Your task to perform on an android device: Go to sound settings Image 0: 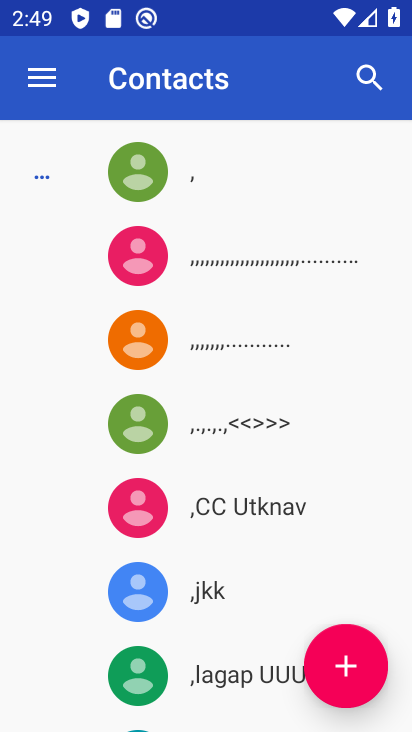
Step 0: press home button
Your task to perform on an android device: Go to sound settings Image 1: 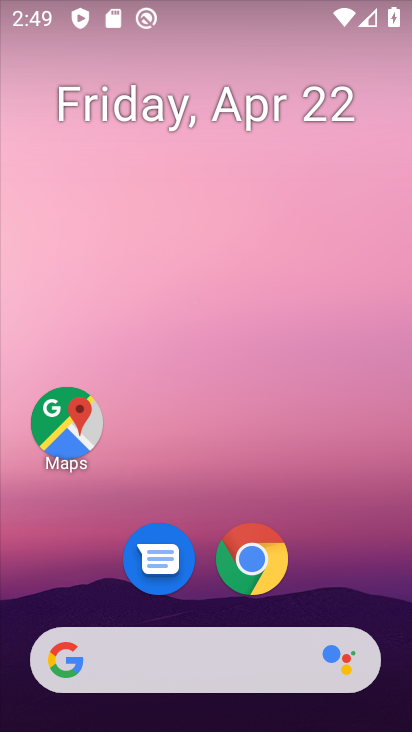
Step 1: drag from (201, 592) to (152, 156)
Your task to perform on an android device: Go to sound settings Image 2: 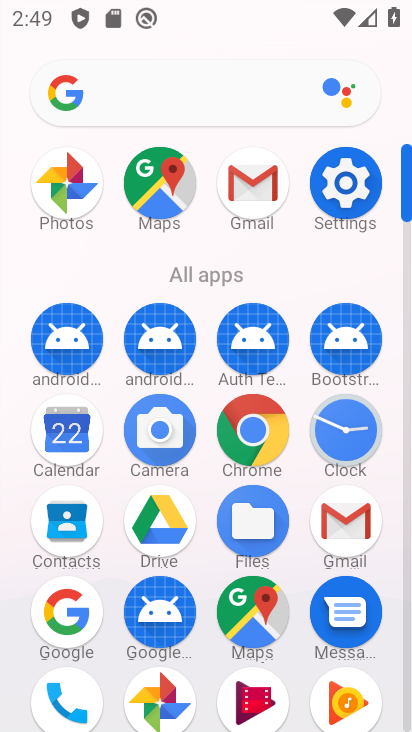
Step 2: click (339, 191)
Your task to perform on an android device: Go to sound settings Image 3: 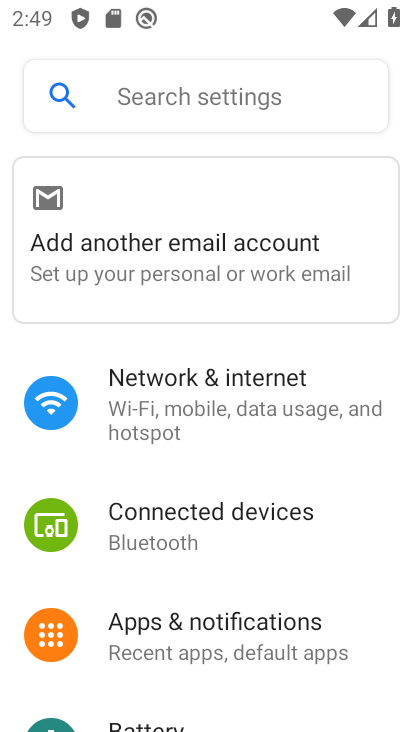
Step 3: drag from (284, 623) to (286, 196)
Your task to perform on an android device: Go to sound settings Image 4: 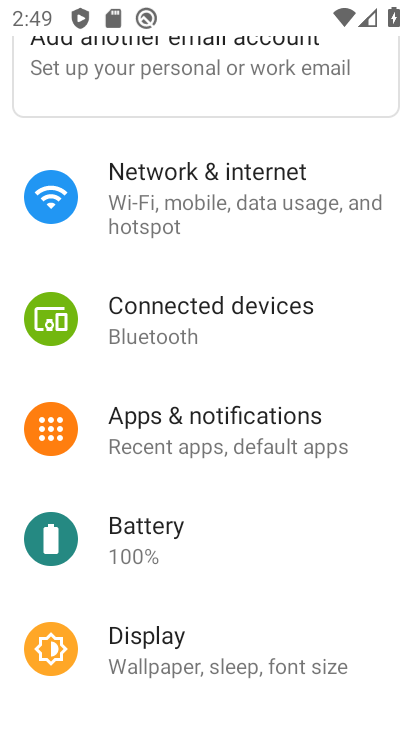
Step 4: drag from (293, 616) to (244, 207)
Your task to perform on an android device: Go to sound settings Image 5: 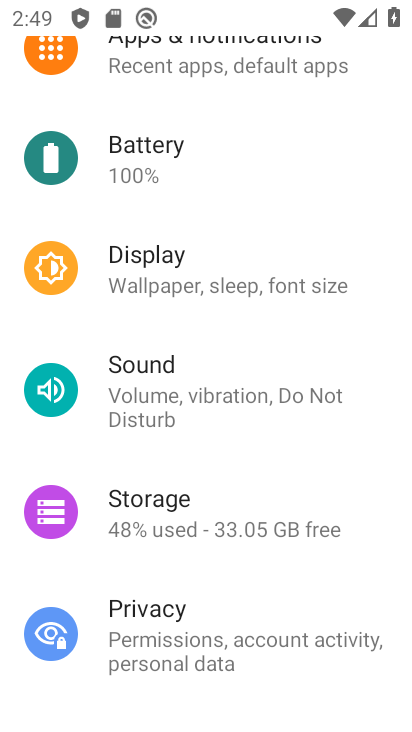
Step 5: click (232, 396)
Your task to perform on an android device: Go to sound settings Image 6: 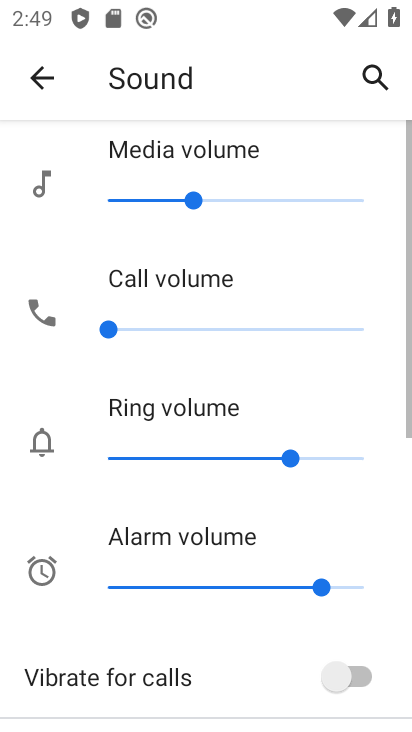
Step 6: task complete